Your task to perform on an android device: Search for sushi restaurants on Maps Image 0: 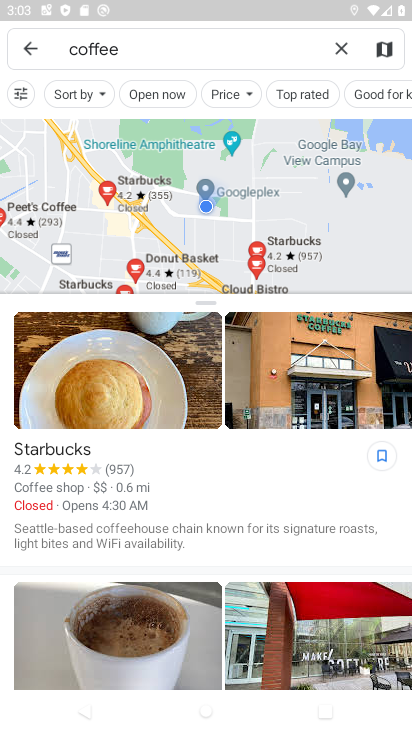
Step 0: click (346, 45)
Your task to perform on an android device: Search for sushi restaurants on Maps Image 1: 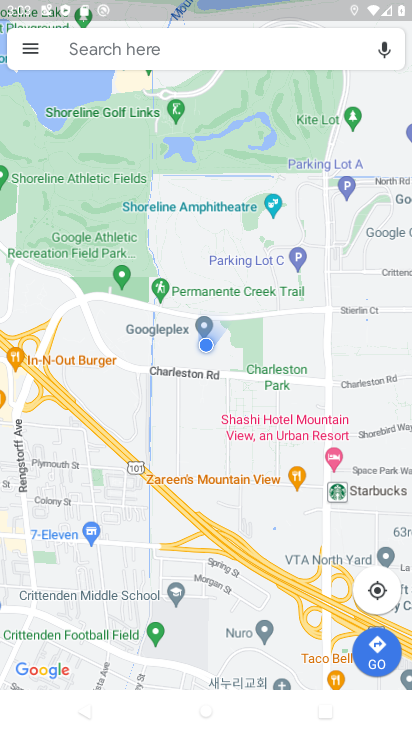
Step 1: click (151, 43)
Your task to perform on an android device: Search for sushi restaurants on Maps Image 2: 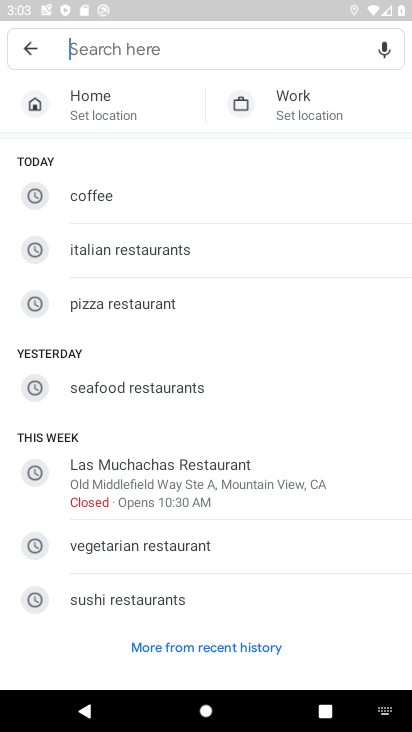
Step 2: click (194, 610)
Your task to perform on an android device: Search for sushi restaurants on Maps Image 3: 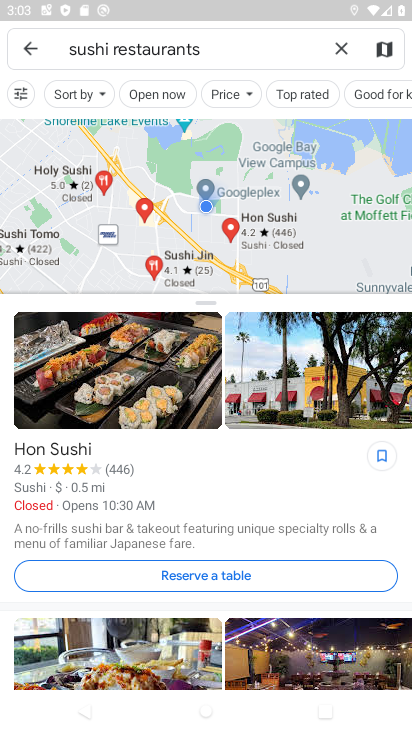
Step 3: task complete